Your task to perform on an android device: Go to accessibility settings Image 0: 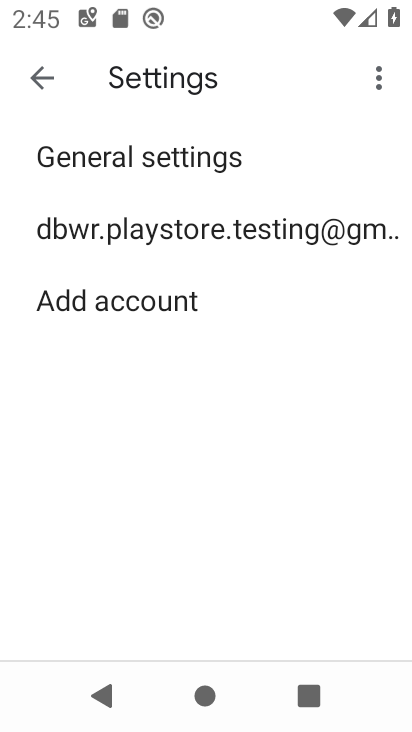
Step 0: press home button
Your task to perform on an android device: Go to accessibility settings Image 1: 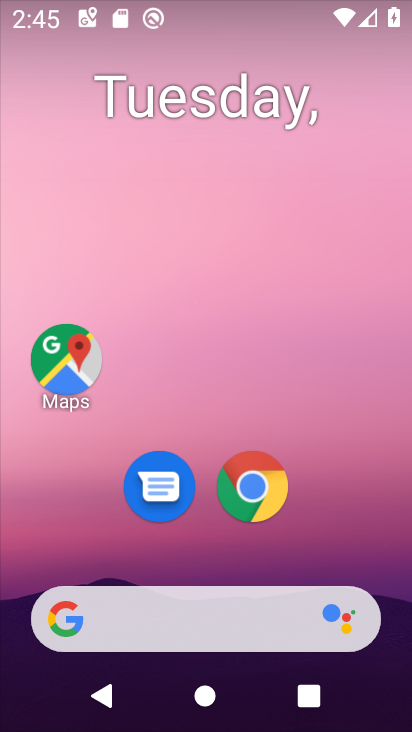
Step 1: drag from (209, 563) to (192, 66)
Your task to perform on an android device: Go to accessibility settings Image 2: 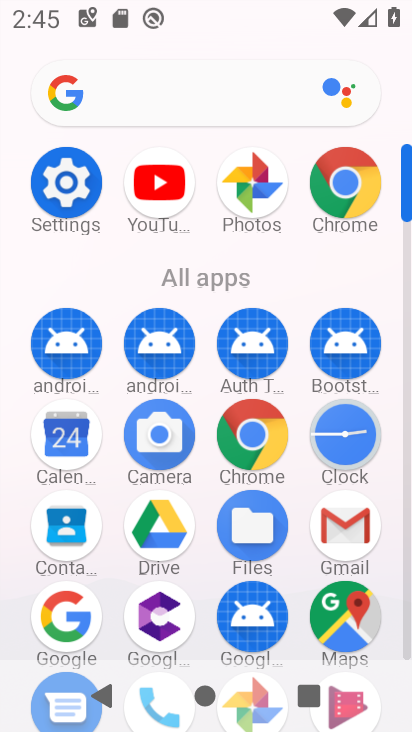
Step 2: click (64, 177)
Your task to perform on an android device: Go to accessibility settings Image 3: 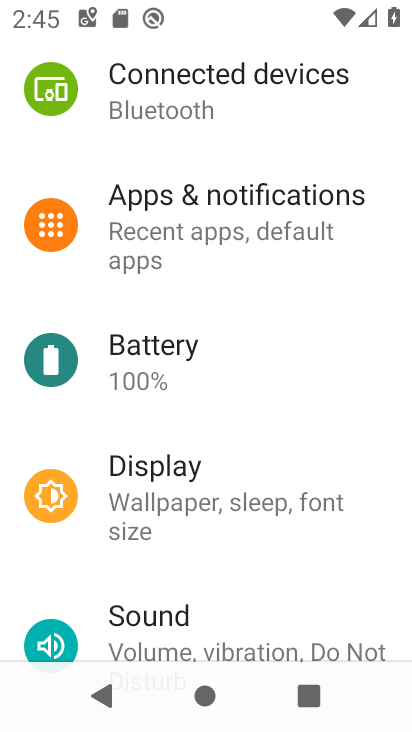
Step 3: drag from (221, 607) to (216, 122)
Your task to perform on an android device: Go to accessibility settings Image 4: 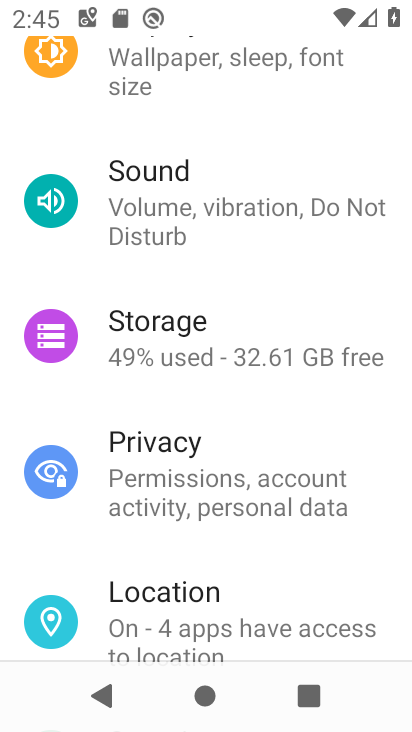
Step 4: drag from (243, 604) to (263, 86)
Your task to perform on an android device: Go to accessibility settings Image 5: 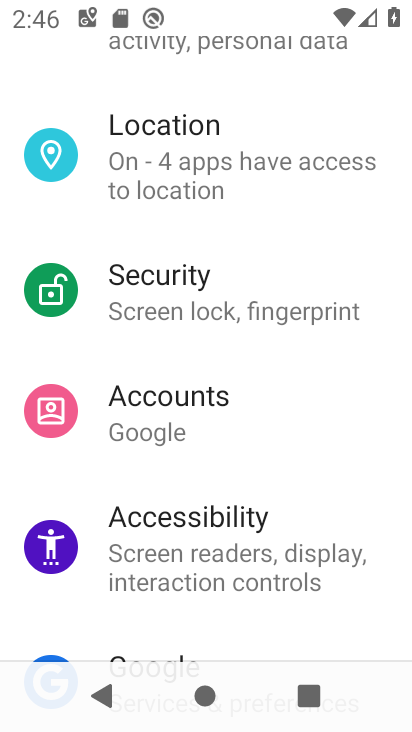
Step 5: click (277, 530)
Your task to perform on an android device: Go to accessibility settings Image 6: 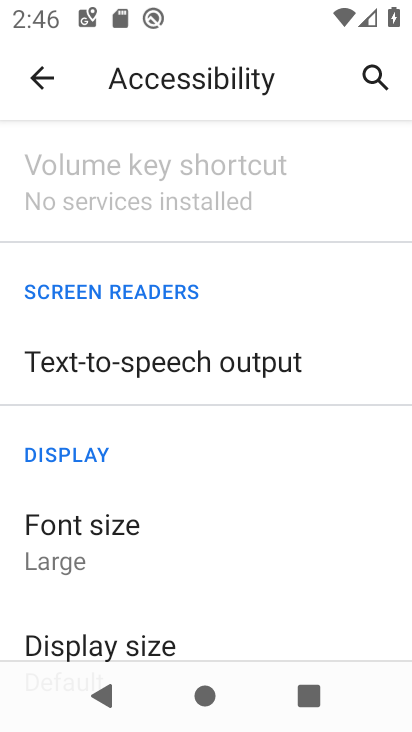
Step 6: task complete